Your task to perform on an android device: change notifications settings Image 0: 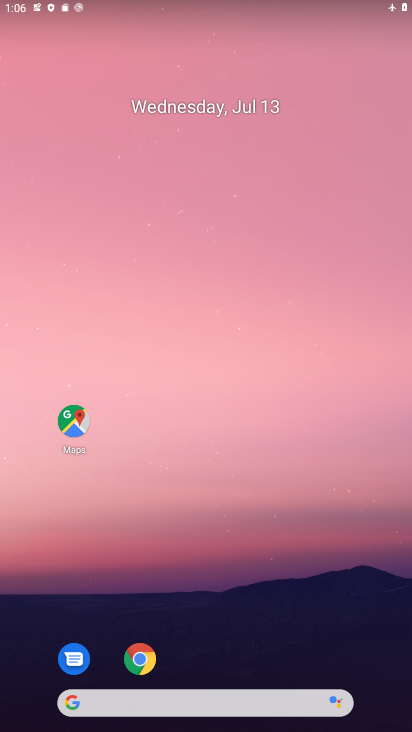
Step 0: press home button
Your task to perform on an android device: change notifications settings Image 1: 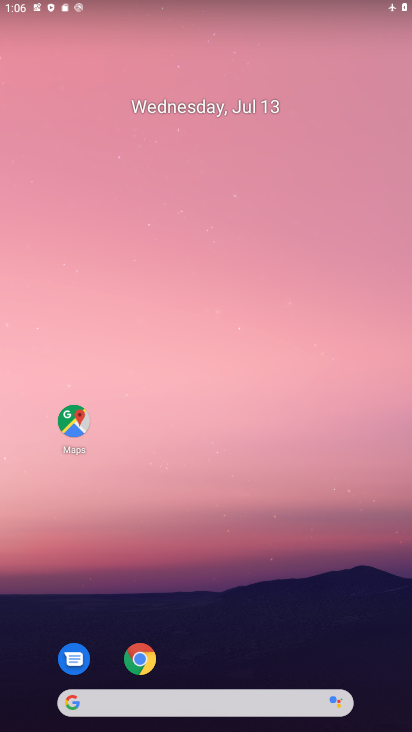
Step 1: drag from (244, 644) to (323, 142)
Your task to perform on an android device: change notifications settings Image 2: 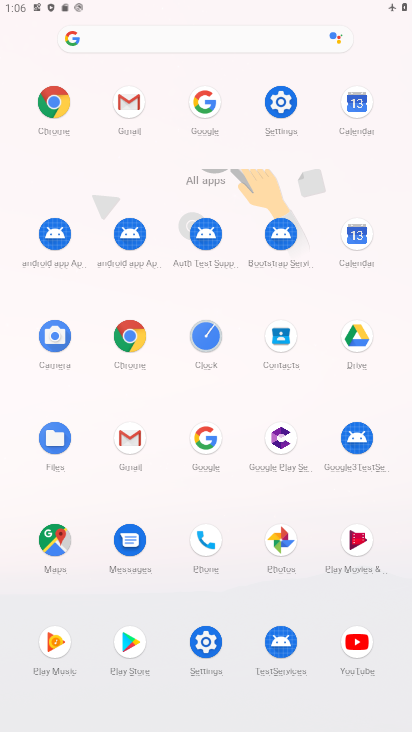
Step 2: click (279, 96)
Your task to perform on an android device: change notifications settings Image 3: 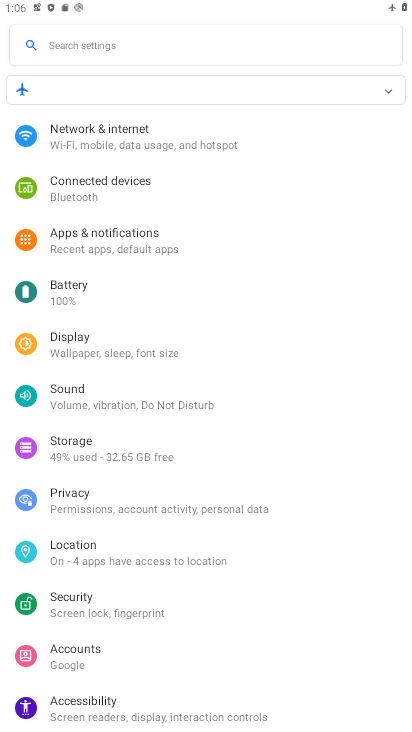
Step 3: click (102, 243)
Your task to perform on an android device: change notifications settings Image 4: 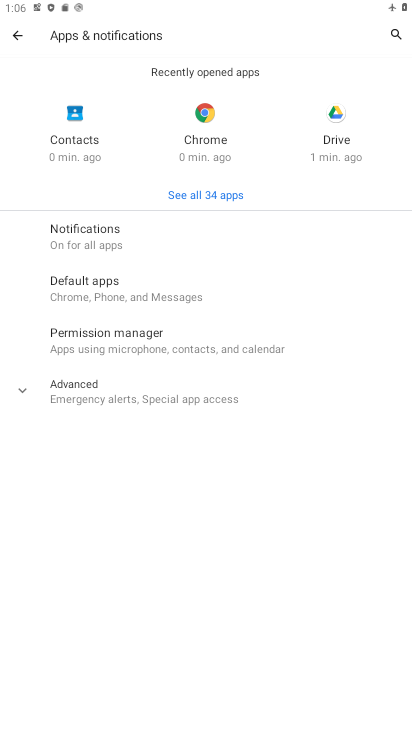
Step 4: click (107, 239)
Your task to perform on an android device: change notifications settings Image 5: 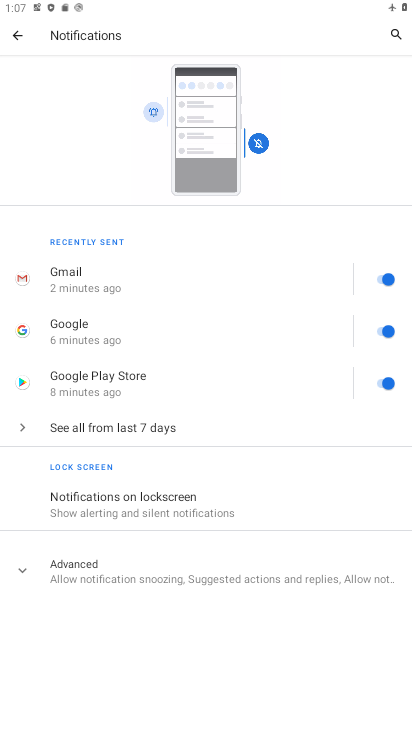
Step 5: click (142, 568)
Your task to perform on an android device: change notifications settings Image 6: 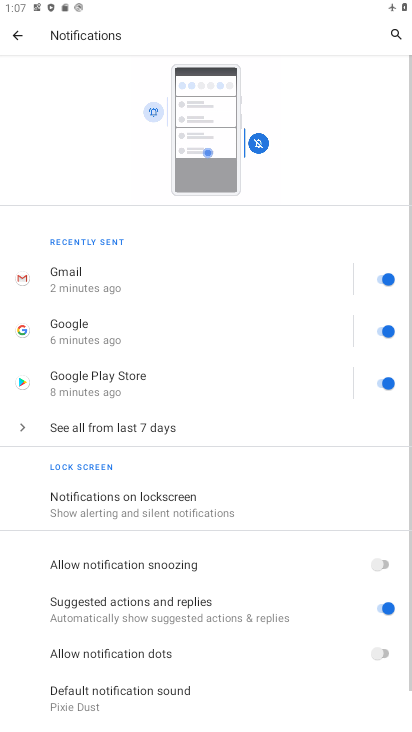
Step 6: click (385, 605)
Your task to perform on an android device: change notifications settings Image 7: 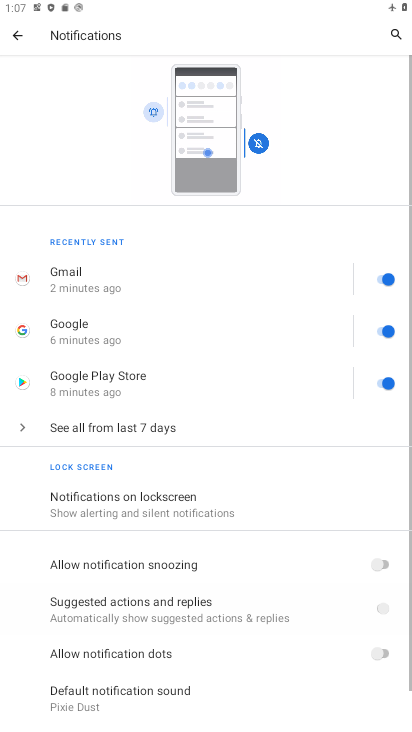
Step 7: click (380, 566)
Your task to perform on an android device: change notifications settings Image 8: 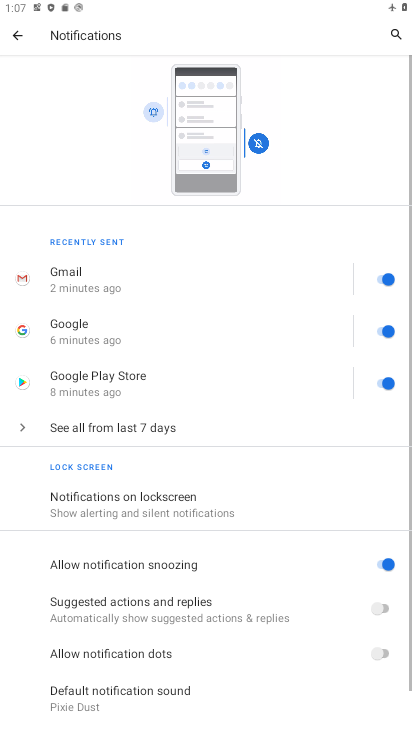
Step 8: click (386, 649)
Your task to perform on an android device: change notifications settings Image 9: 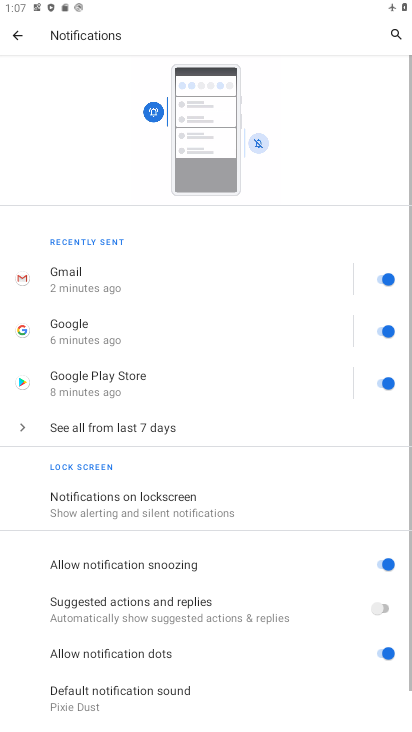
Step 9: task complete